Your task to perform on an android device: open app "Lyft - Rideshare, Bikes, Scooters & Transit" (install if not already installed) and go to login screen Image 0: 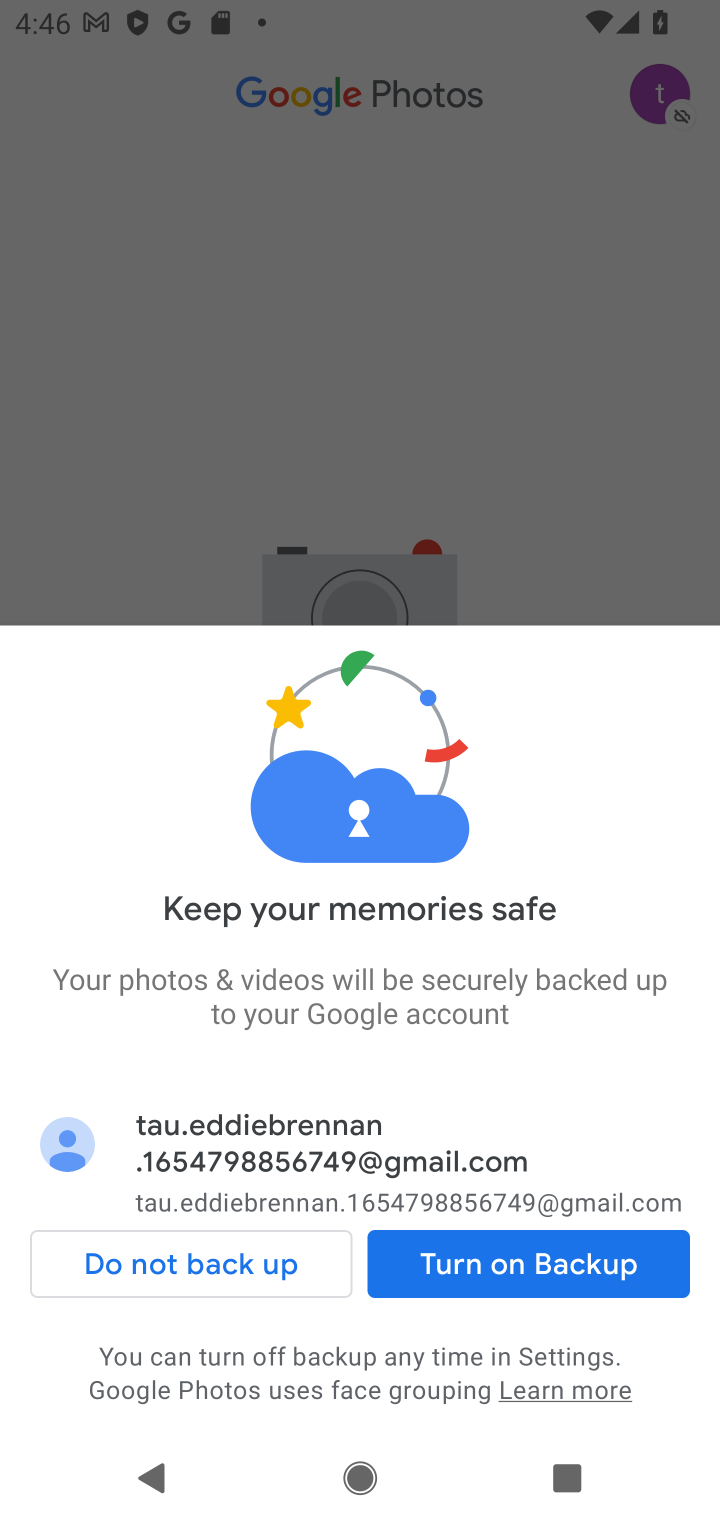
Step 0: press home button
Your task to perform on an android device: open app "Lyft - Rideshare, Bikes, Scooters & Transit" (install if not already installed) and go to login screen Image 1: 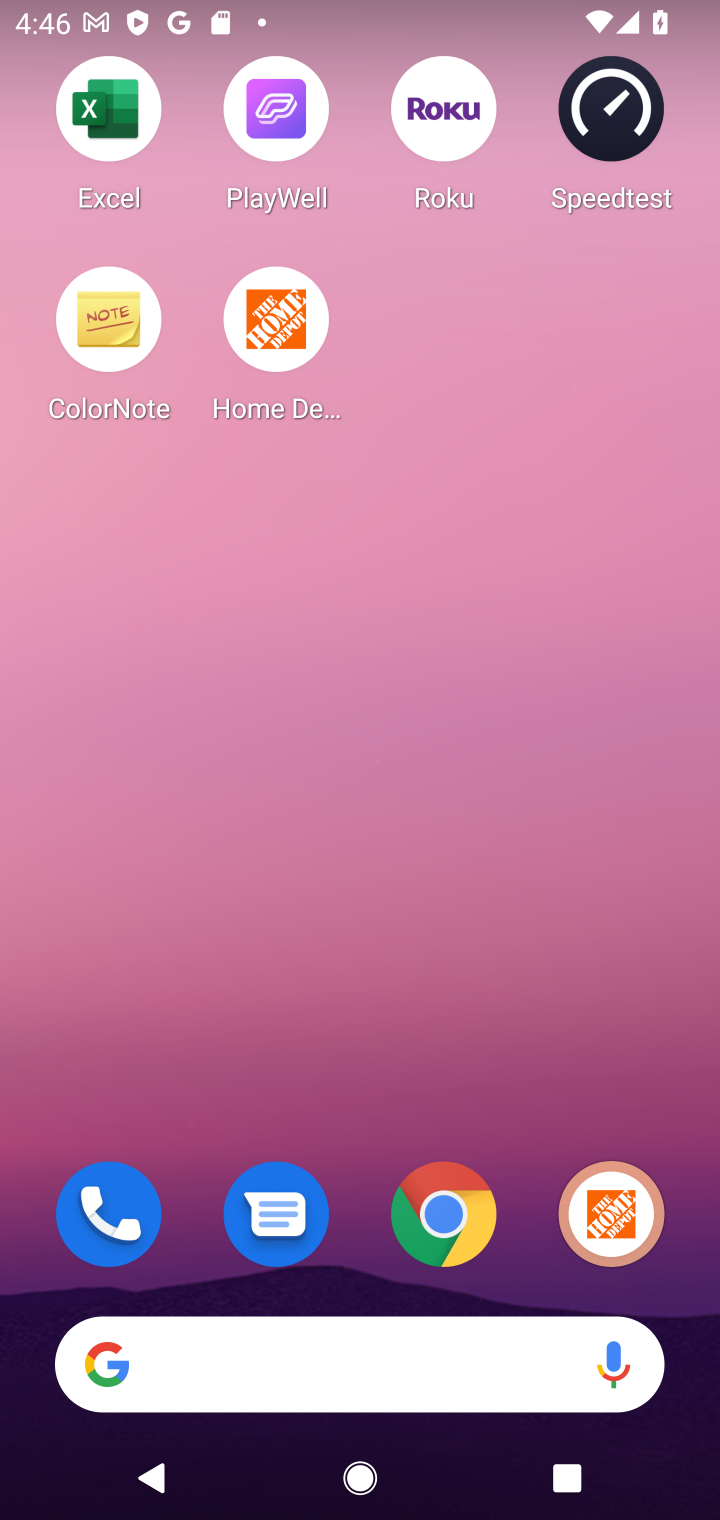
Step 1: drag from (542, 1106) to (480, 246)
Your task to perform on an android device: open app "Lyft - Rideshare, Bikes, Scooters & Transit" (install if not already installed) and go to login screen Image 2: 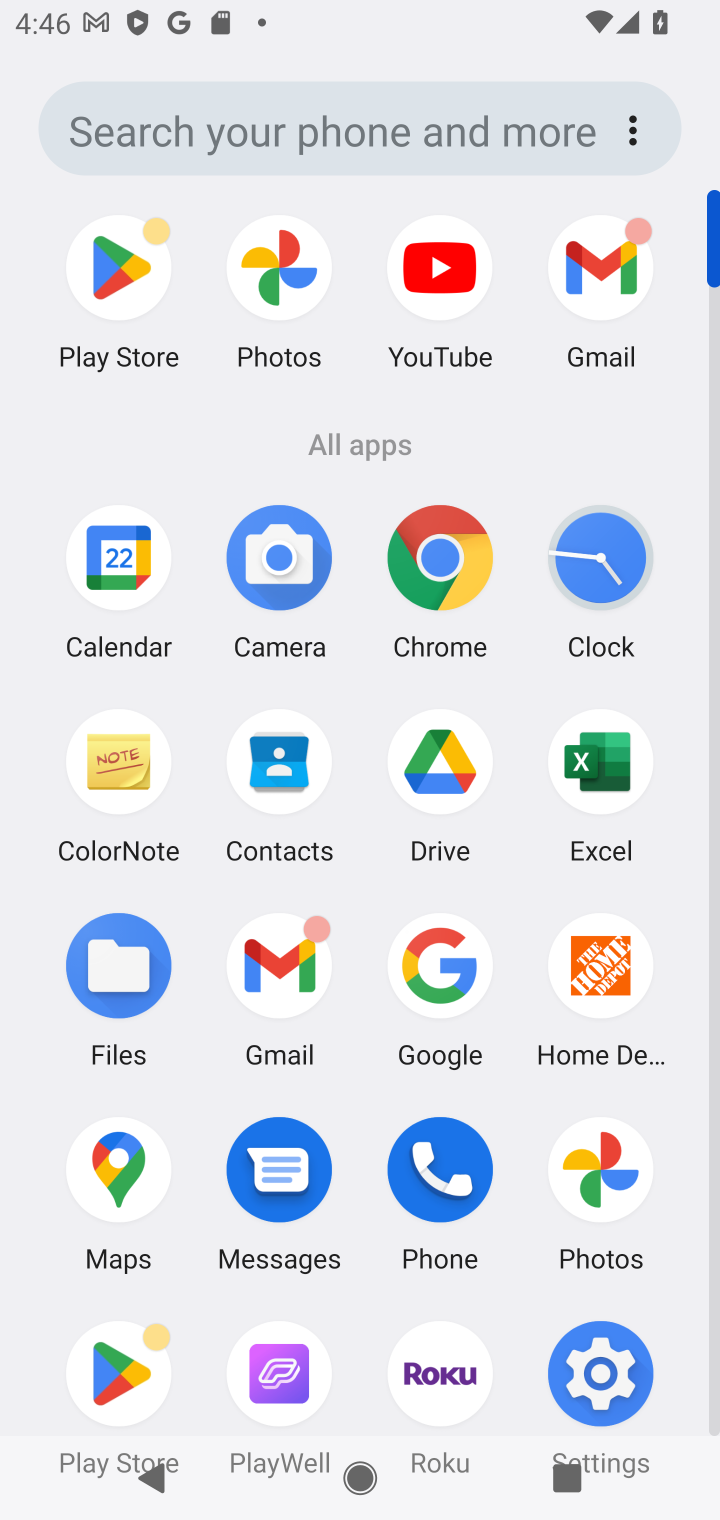
Step 2: click (122, 1382)
Your task to perform on an android device: open app "Lyft - Rideshare, Bikes, Scooters & Transit" (install if not already installed) and go to login screen Image 3: 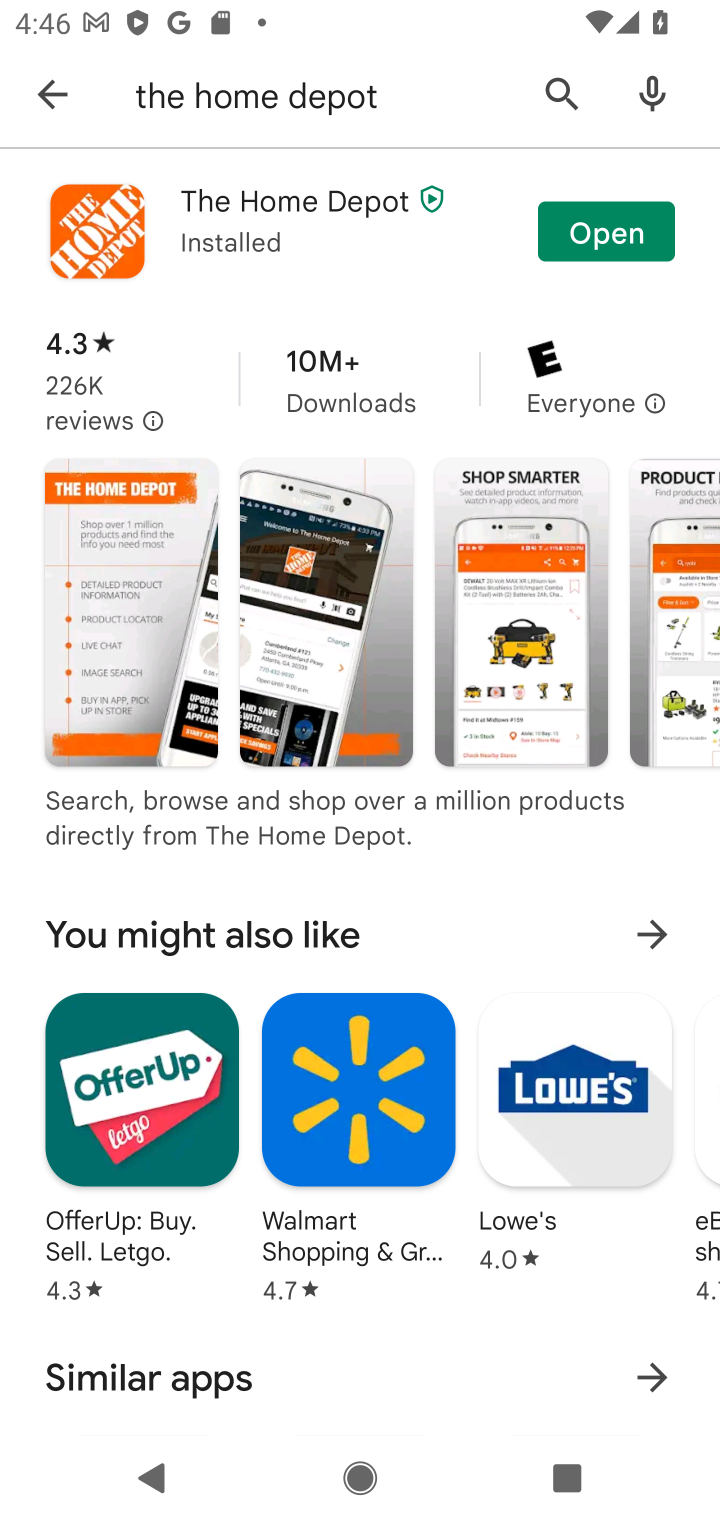
Step 3: click (559, 84)
Your task to perform on an android device: open app "Lyft - Rideshare, Bikes, Scooters & Transit" (install if not already installed) and go to login screen Image 4: 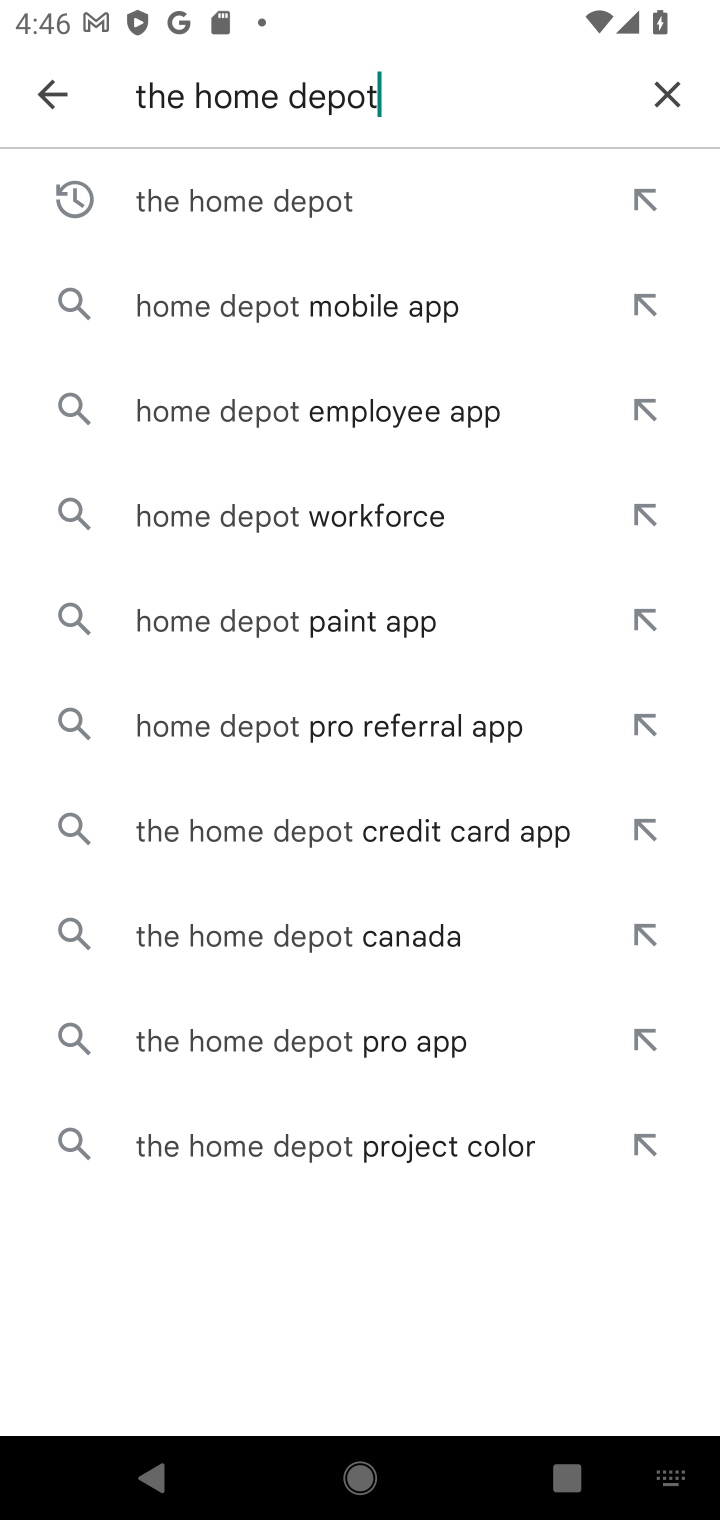
Step 4: click (654, 97)
Your task to perform on an android device: open app "Lyft - Rideshare, Bikes, Scooters & Transit" (install if not already installed) and go to login screen Image 5: 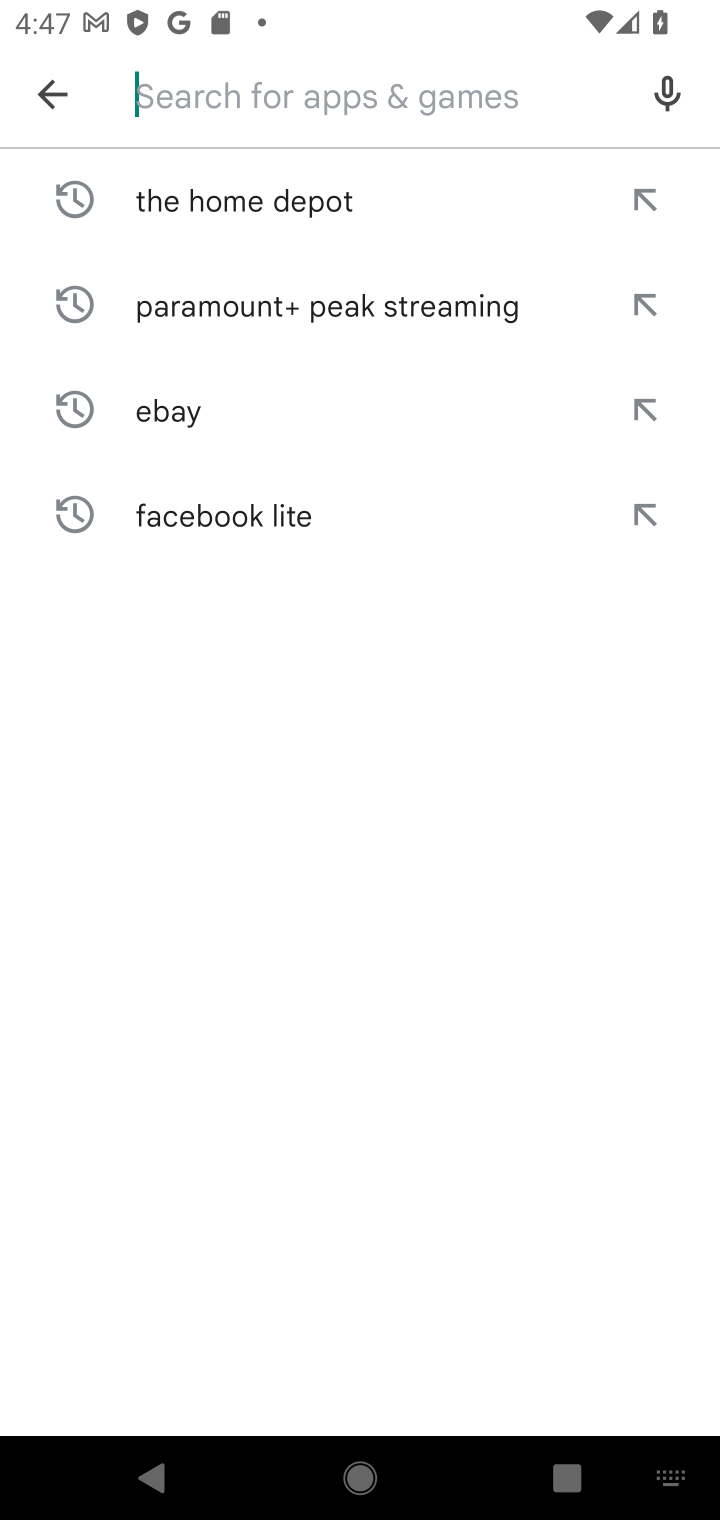
Step 5: type "Lyft - Rideshare, Bikes, scooters"
Your task to perform on an android device: open app "Lyft - Rideshare, Bikes, Scooters & Transit" (install if not already installed) and go to login screen Image 6: 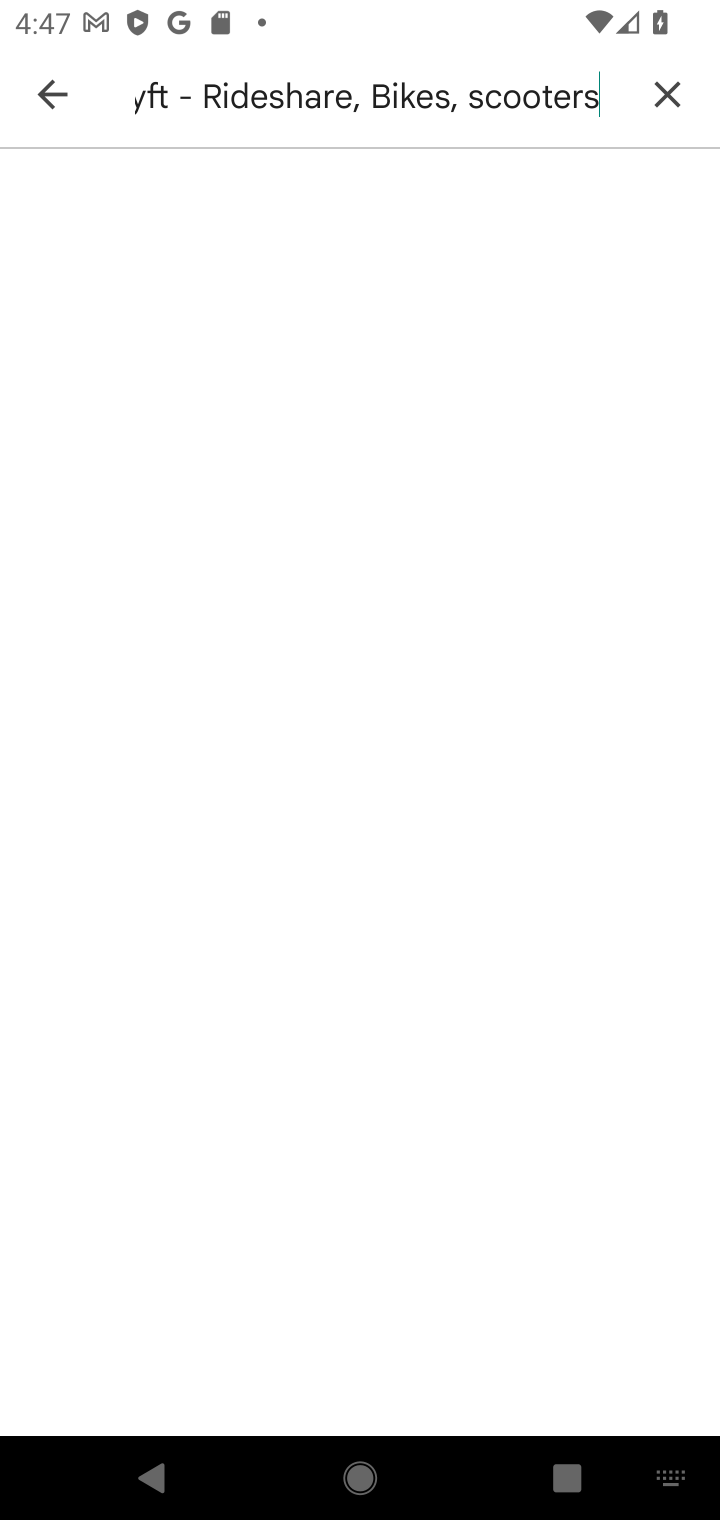
Step 6: task complete